Your task to perform on an android device: Empty the shopping cart on costco.com. Image 0: 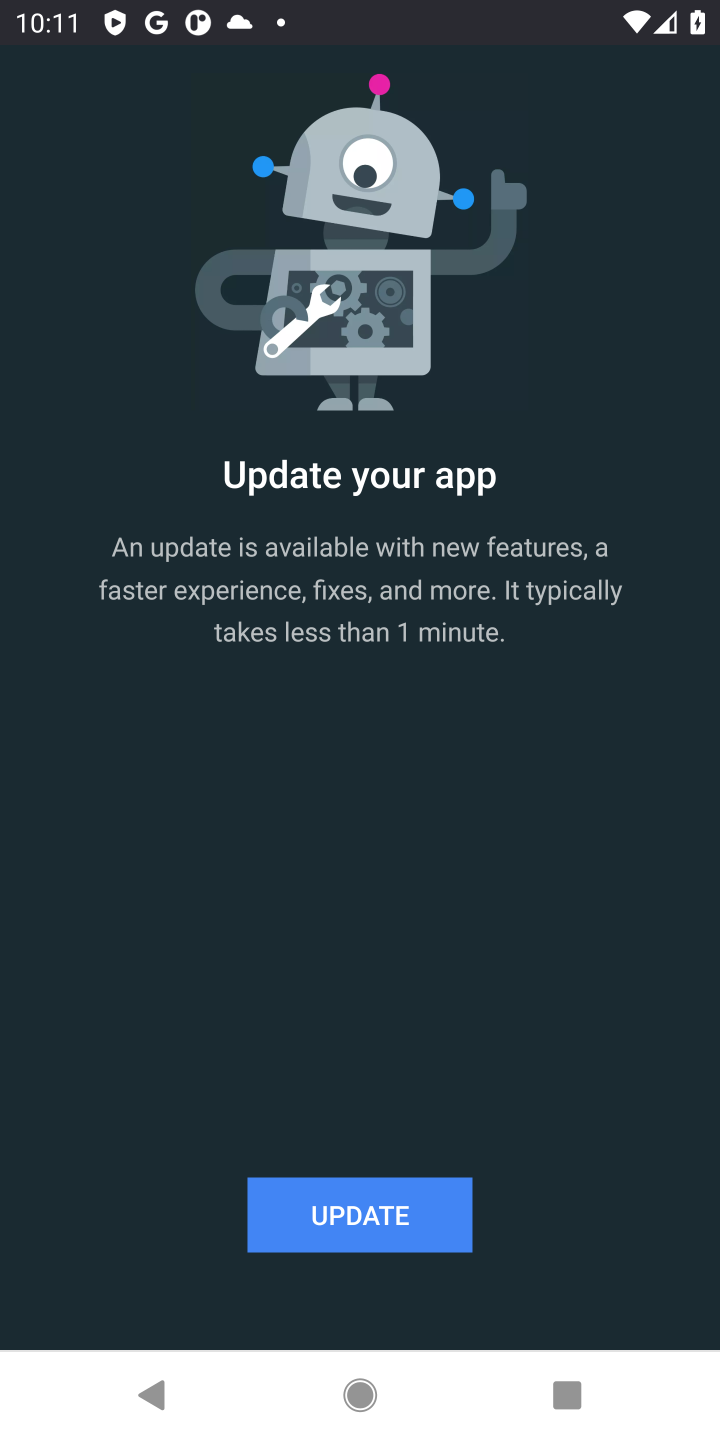
Step 0: press home button
Your task to perform on an android device: Empty the shopping cart on costco.com. Image 1: 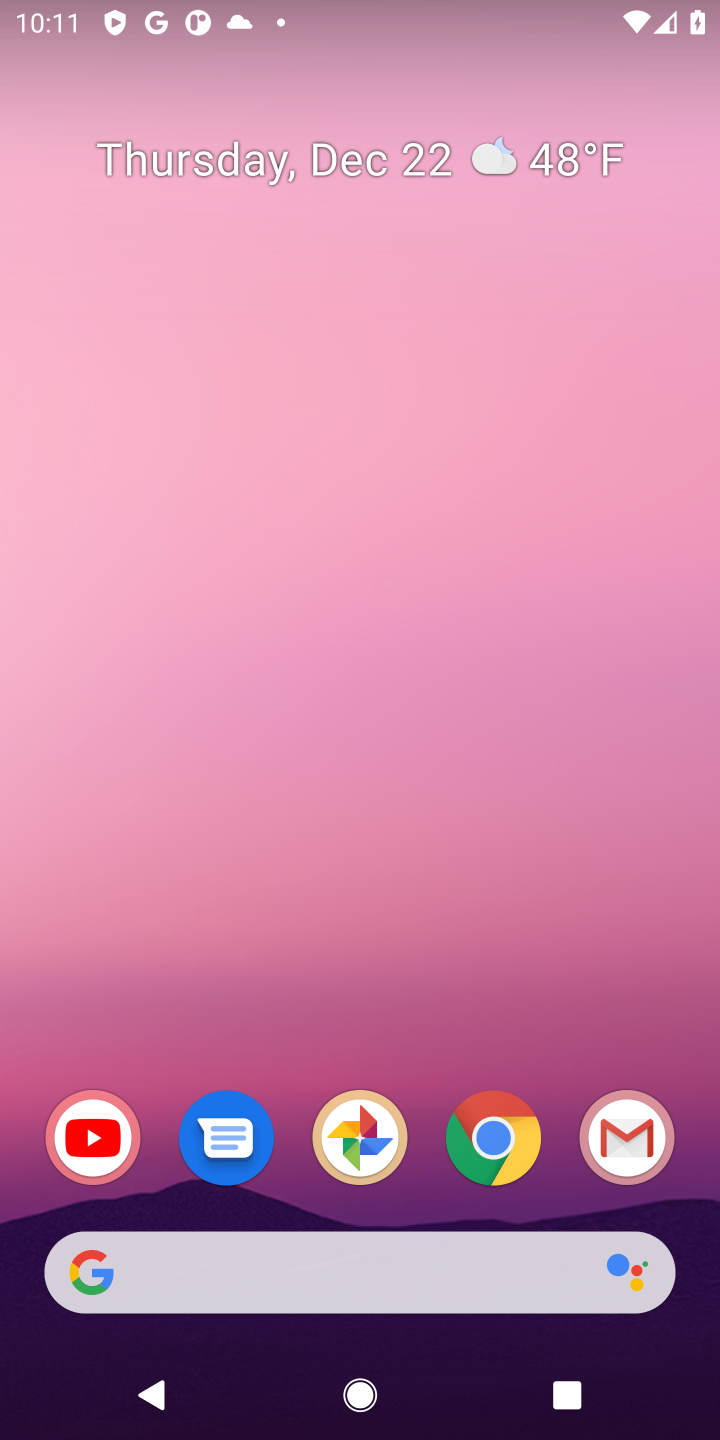
Step 1: click (507, 1131)
Your task to perform on an android device: Empty the shopping cart on costco.com. Image 2: 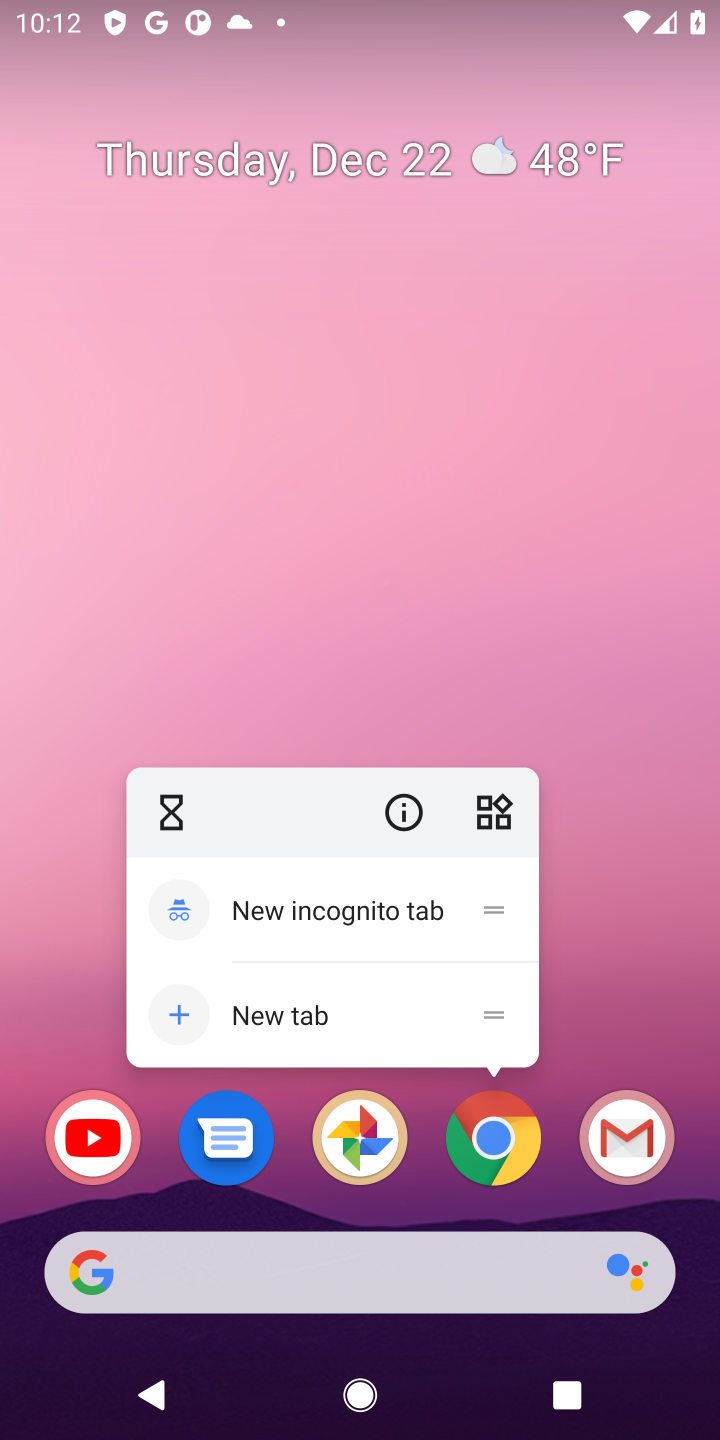
Step 2: click (476, 1135)
Your task to perform on an android device: Empty the shopping cart on costco.com. Image 3: 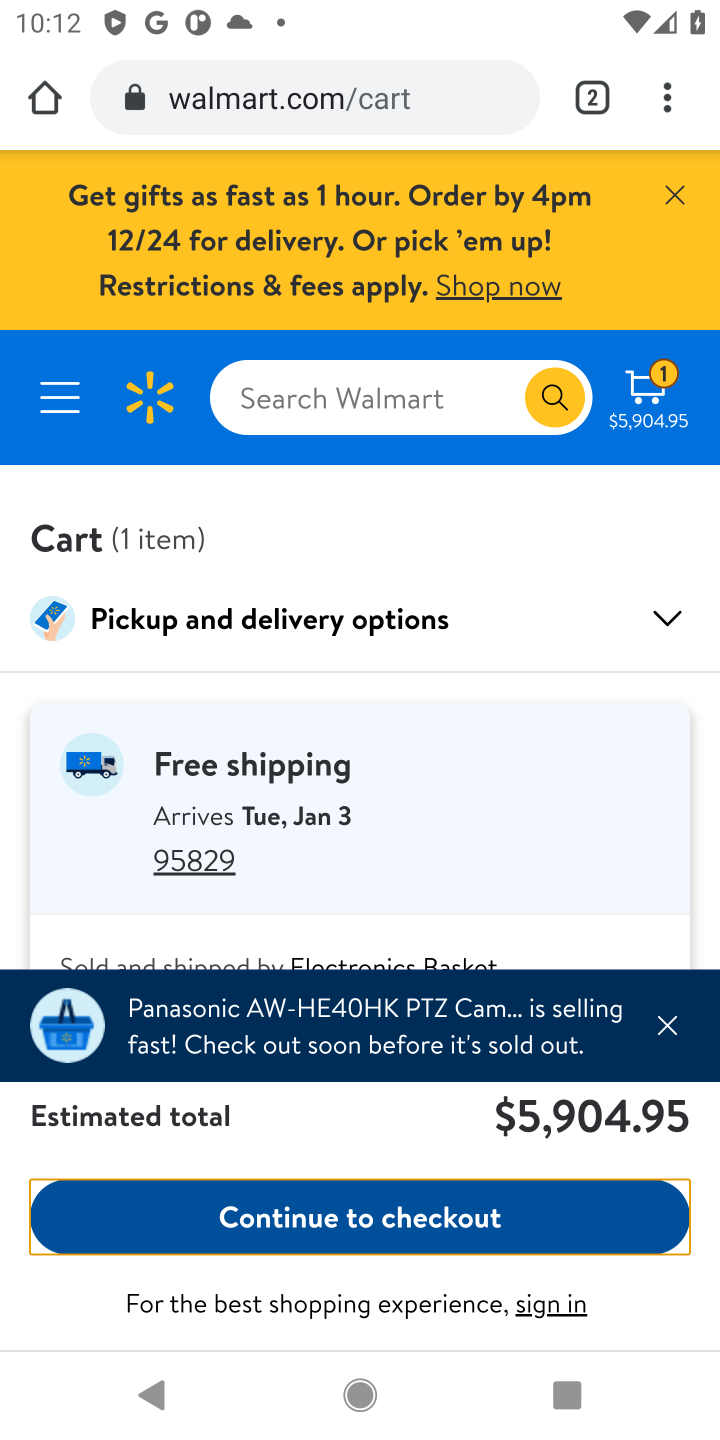
Step 3: click (426, 97)
Your task to perform on an android device: Empty the shopping cart on costco.com. Image 4: 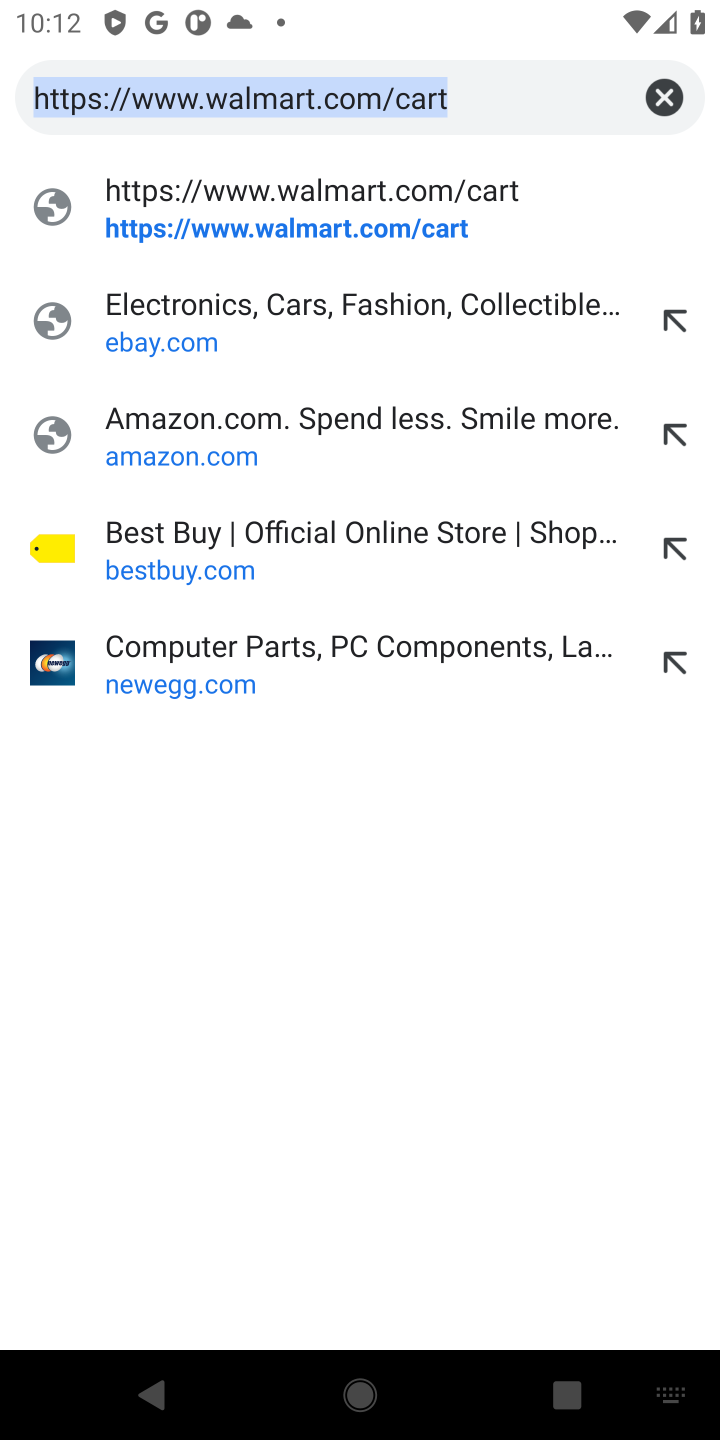
Step 4: click (657, 108)
Your task to perform on an android device: Empty the shopping cart on costco.com. Image 5: 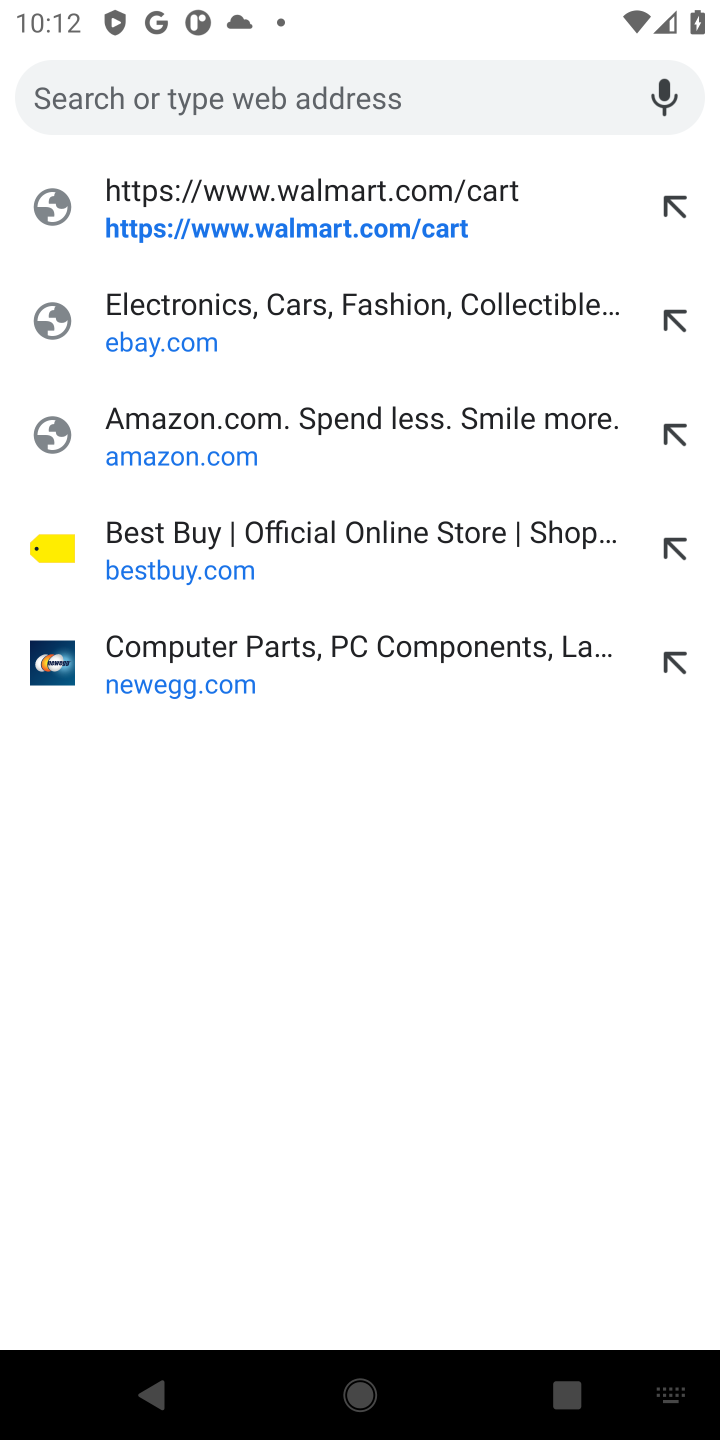
Step 5: type "costco.com"
Your task to perform on an android device: Empty the shopping cart on costco.com. Image 6: 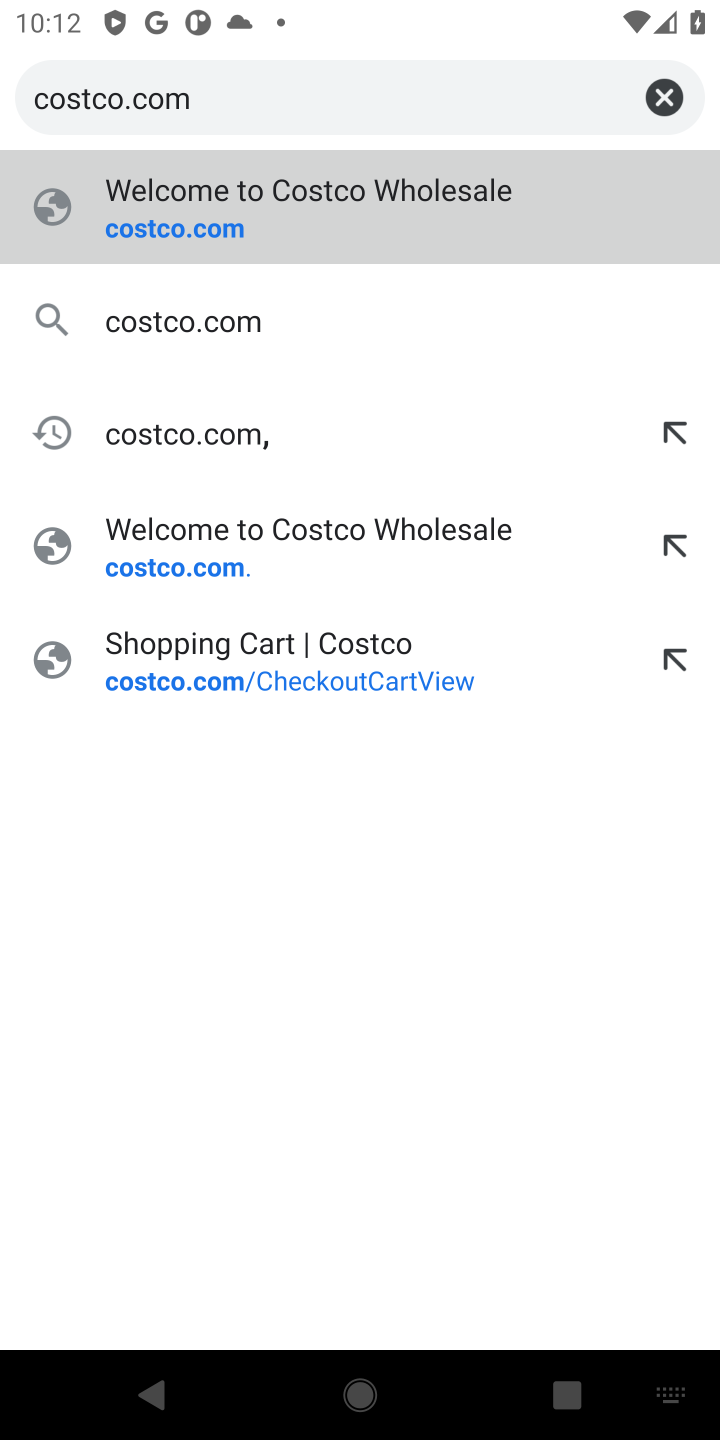
Step 6: press enter
Your task to perform on an android device: Empty the shopping cart on costco.com. Image 7: 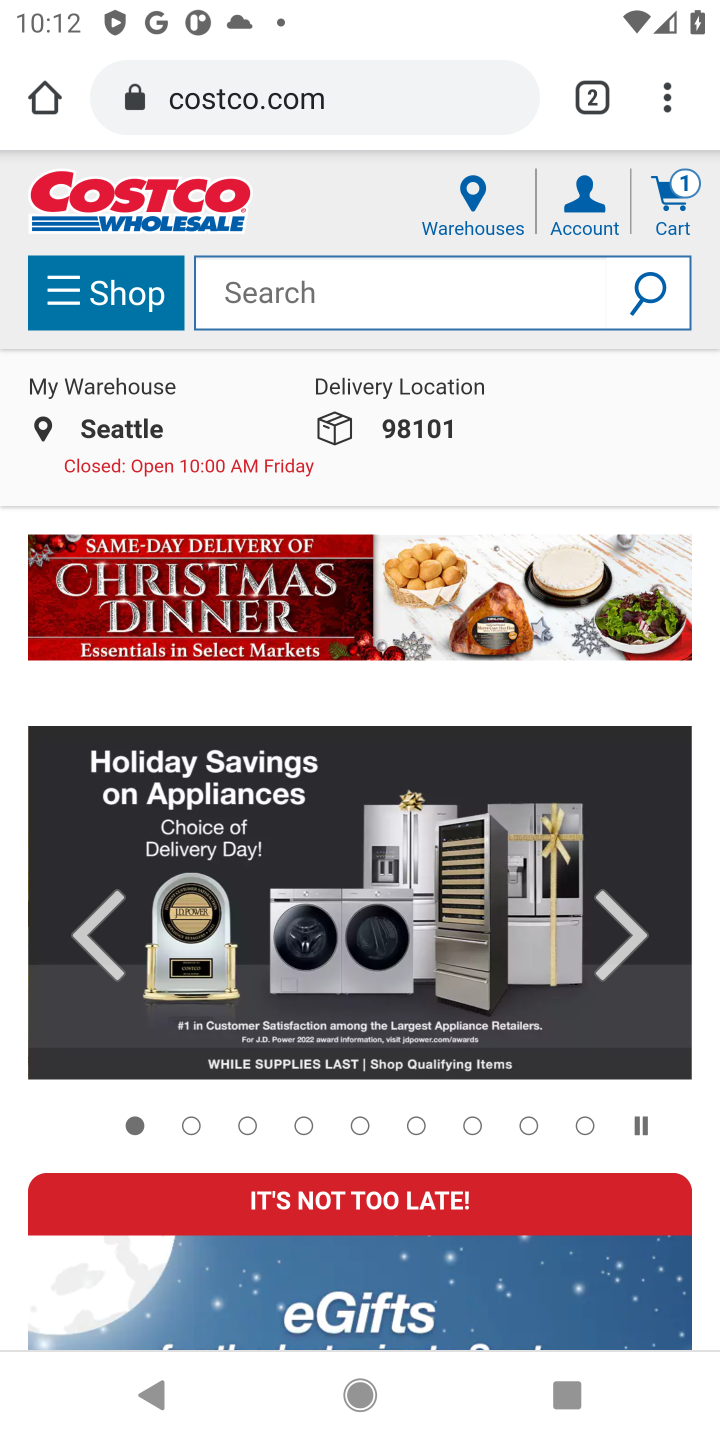
Step 7: click (664, 191)
Your task to perform on an android device: Empty the shopping cart on costco.com. Image 8: 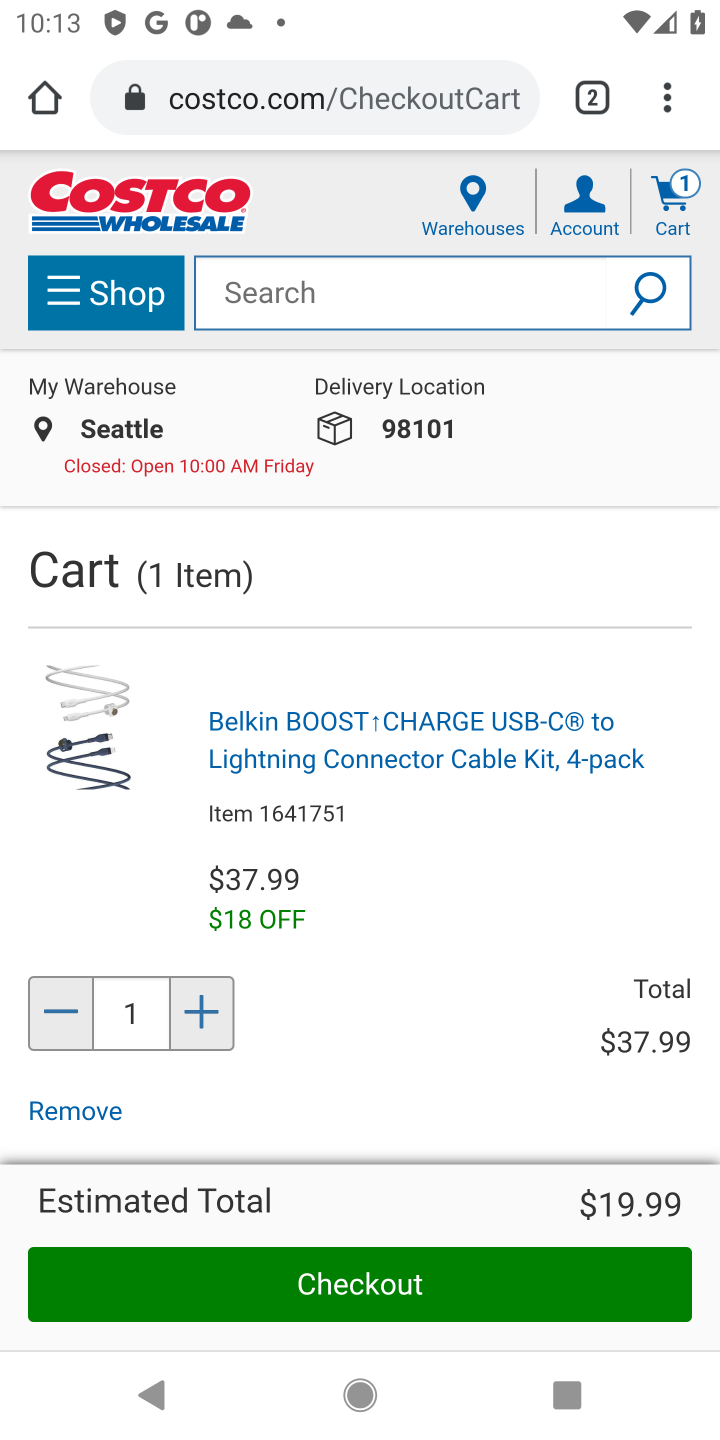
Step 8: drag from (313, 1090) to (442, 523)
Your task to perform on an android device: Empty the shopping cart on costco.com. Image 9: 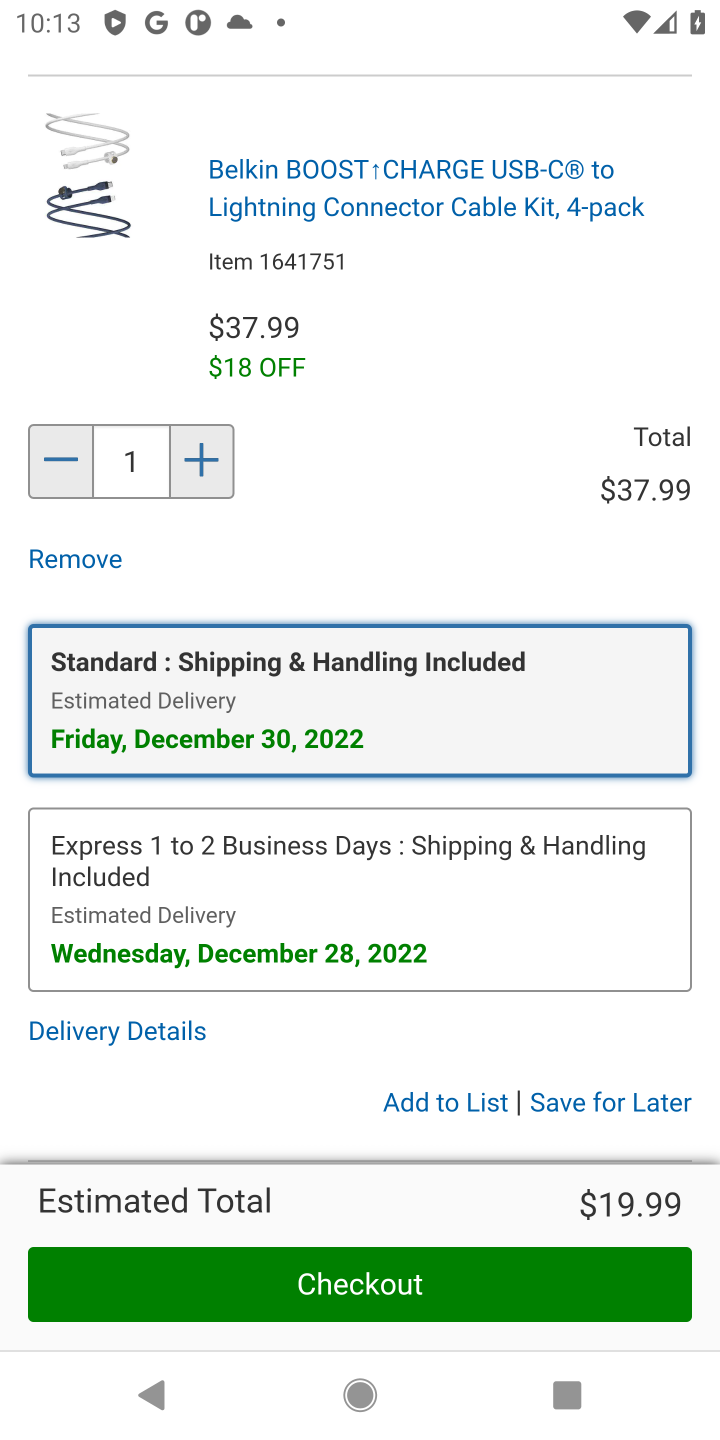
Step 9: click (100, 556)
Your task to perform on an android device: Empty the shopping cart on costco.com. Image 10: 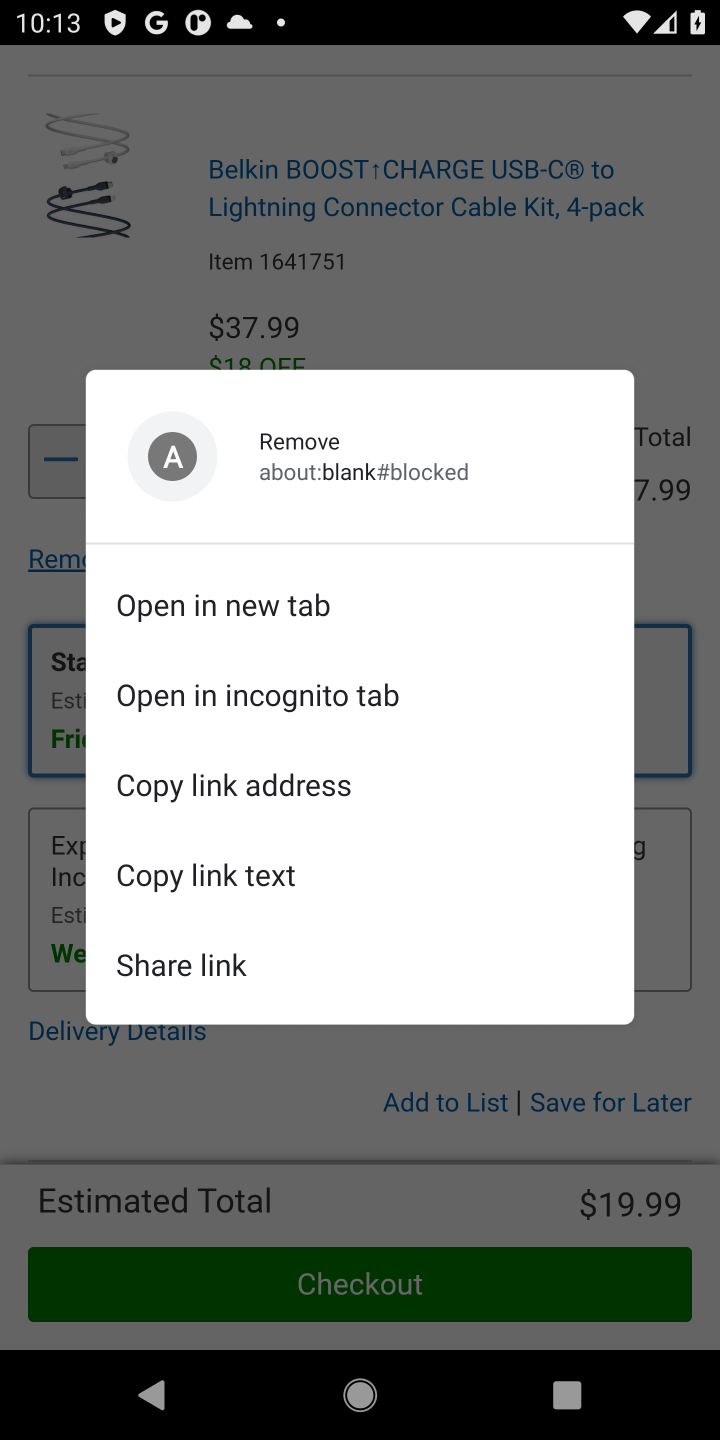
Step 10: click (663, 598)
Your task to perform on an android device: Empty the shopping cart on costco.com. Image 11: 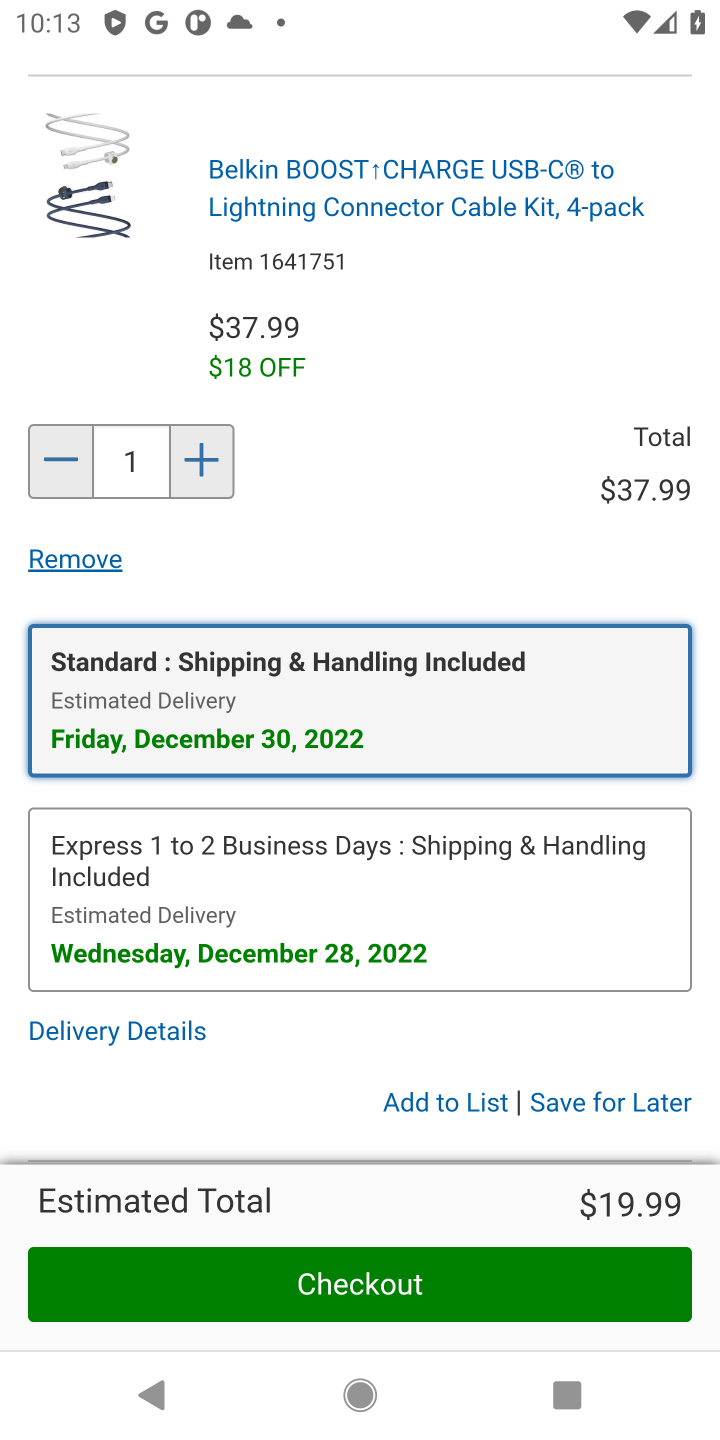
Step 11: click (45, 560)
Your task to perform on an android device: Empty the shopping cart on costco.com. Image 12: 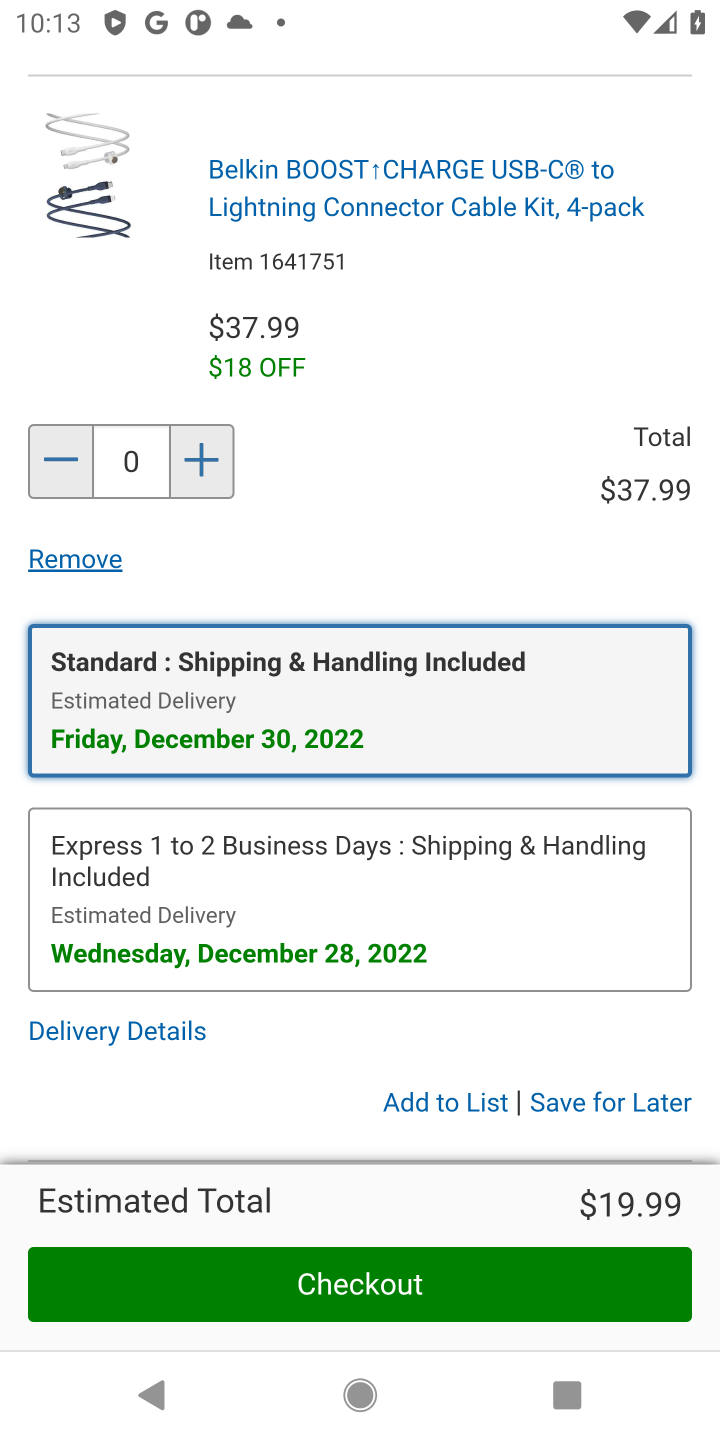
Step 12: click (623, 1111)
Your task to perform on an android device: Empty the shopping cart on costco.com. Image 13: 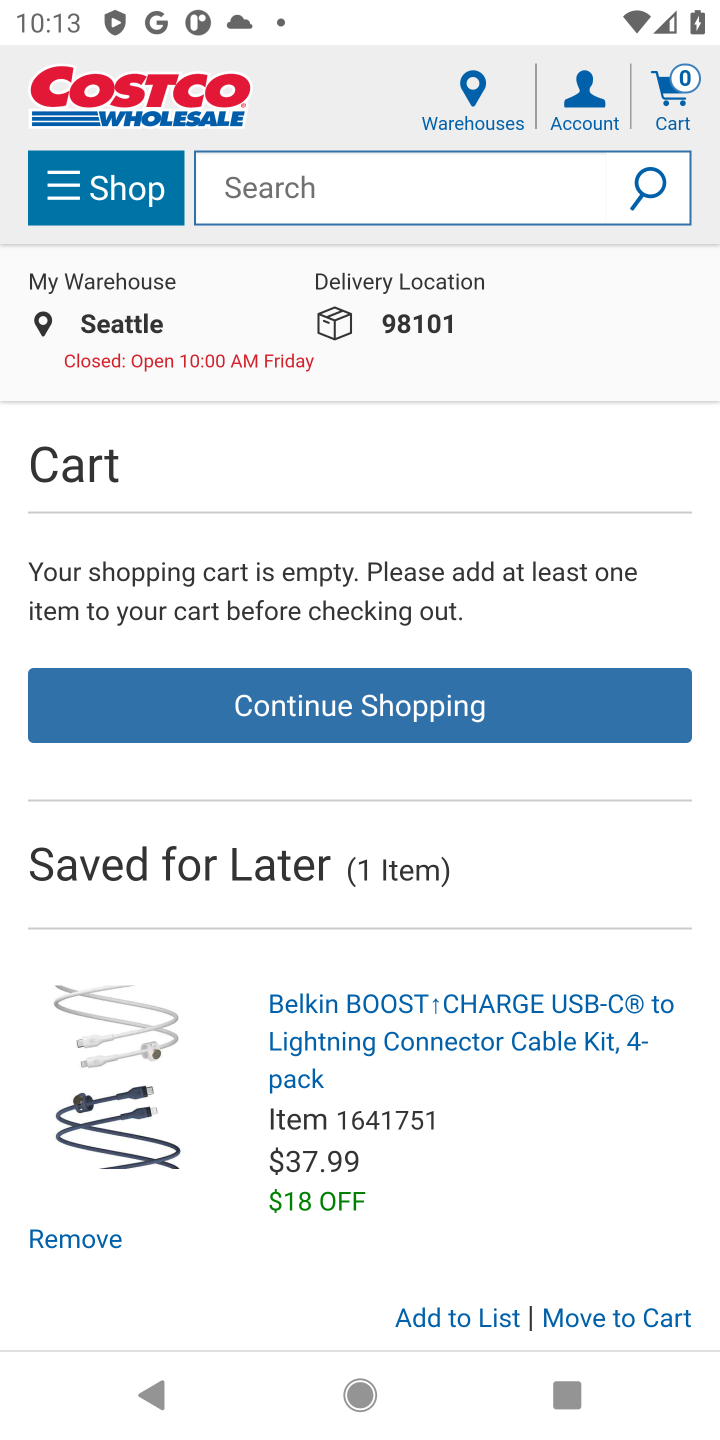
Step 13: task complete